Your task to perform on an android device: Search for "apple airpods pro" on newegg, select the first entry, add it to the cart, then select checkout. Image 0: 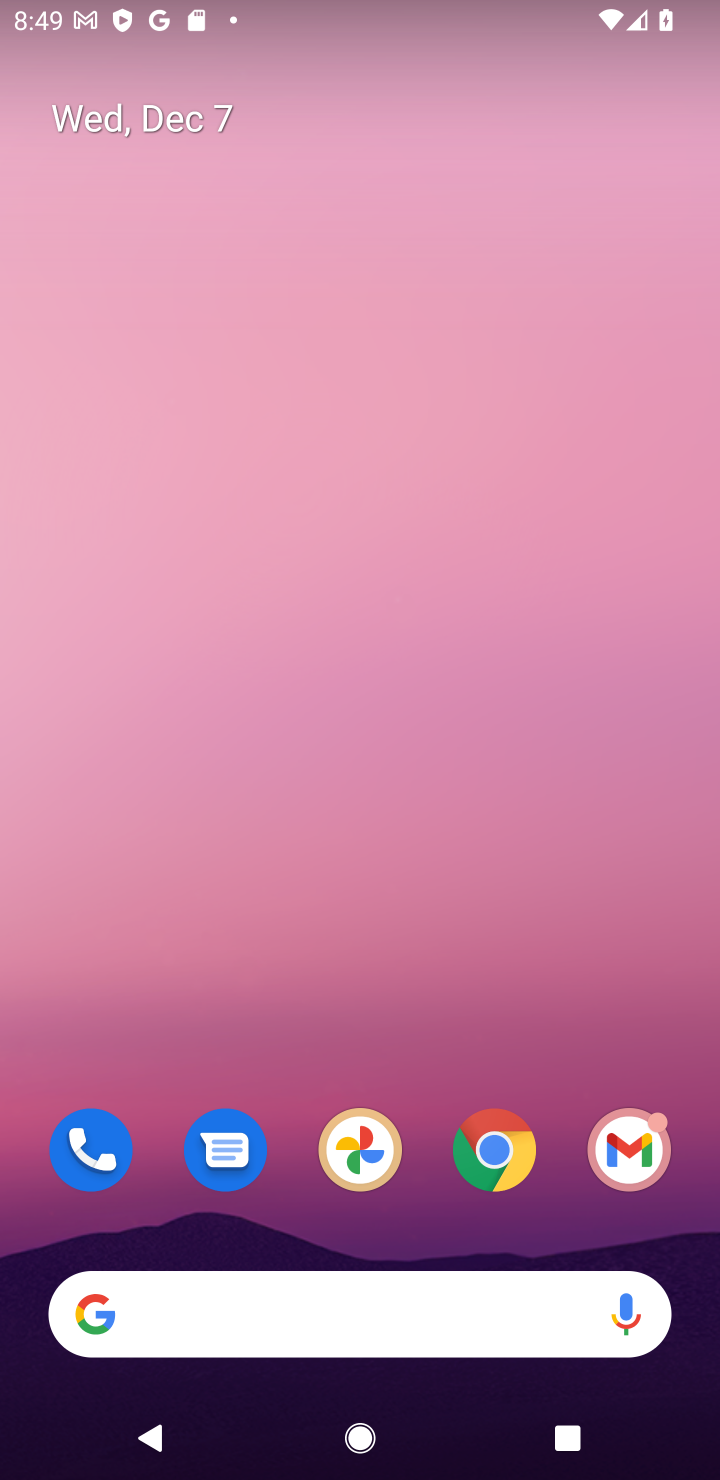
Step 0: click (519, 1164)
Your task to perform on an android device: Search for "apple airpods pro" on newegg, select the first entry, add it to the cart, then select checkout. Image 1: 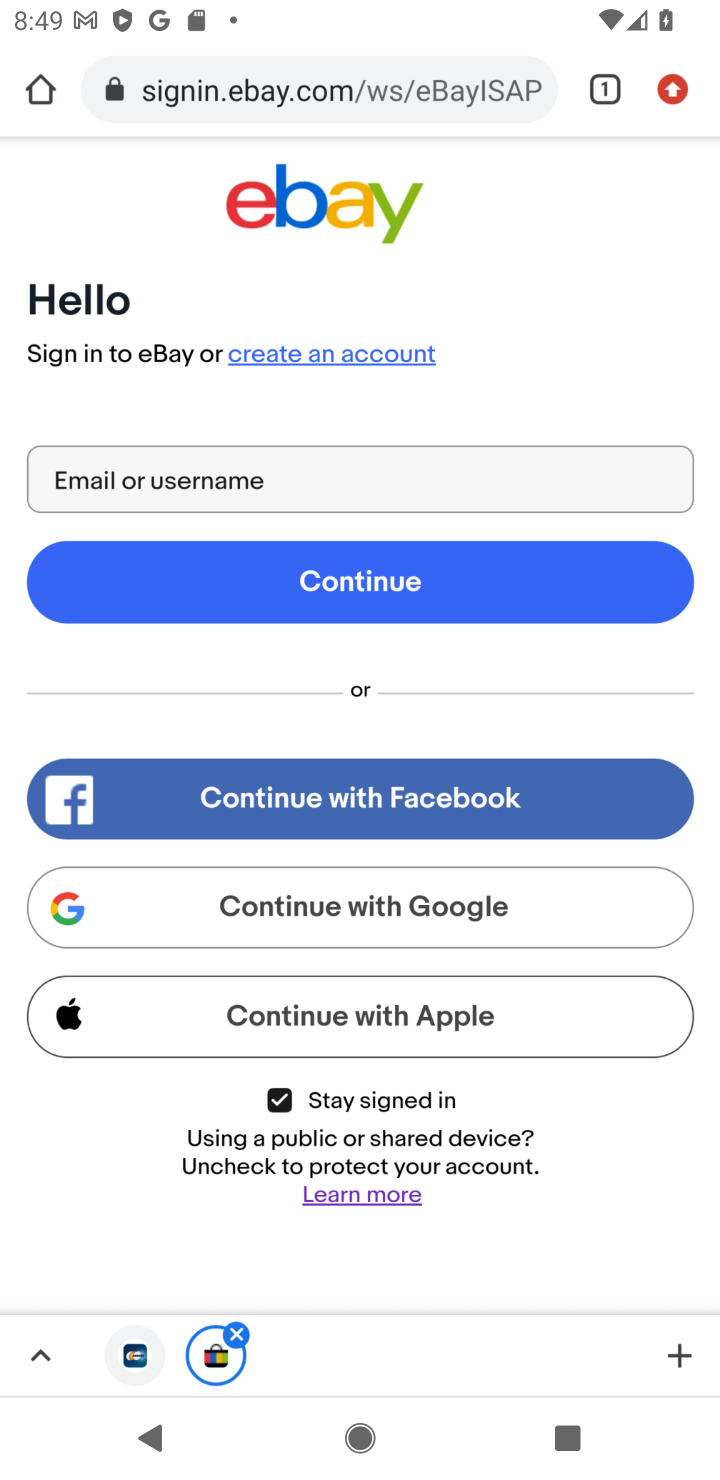
Step 1: click (273, 95)
Your task to perform on an android device: Search for "apple airpods pro" on newegg, select the first entry, add it to the cart, then select checkout. Image 2: 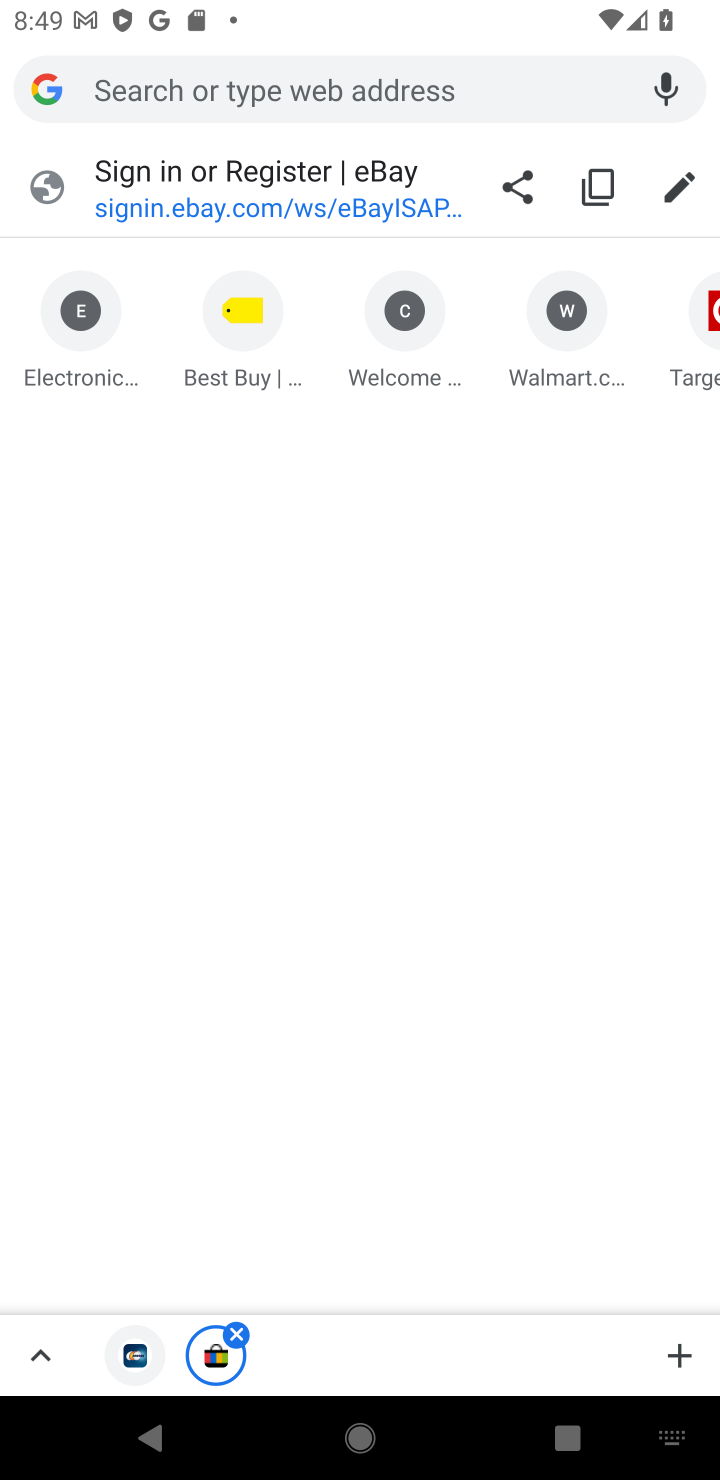
Step 2: type "newegg"
Your task to perform on an android device: Search for "apple airpods pro" on newegg, select the first entry, add it to the cart, then select checkout. Image 3: 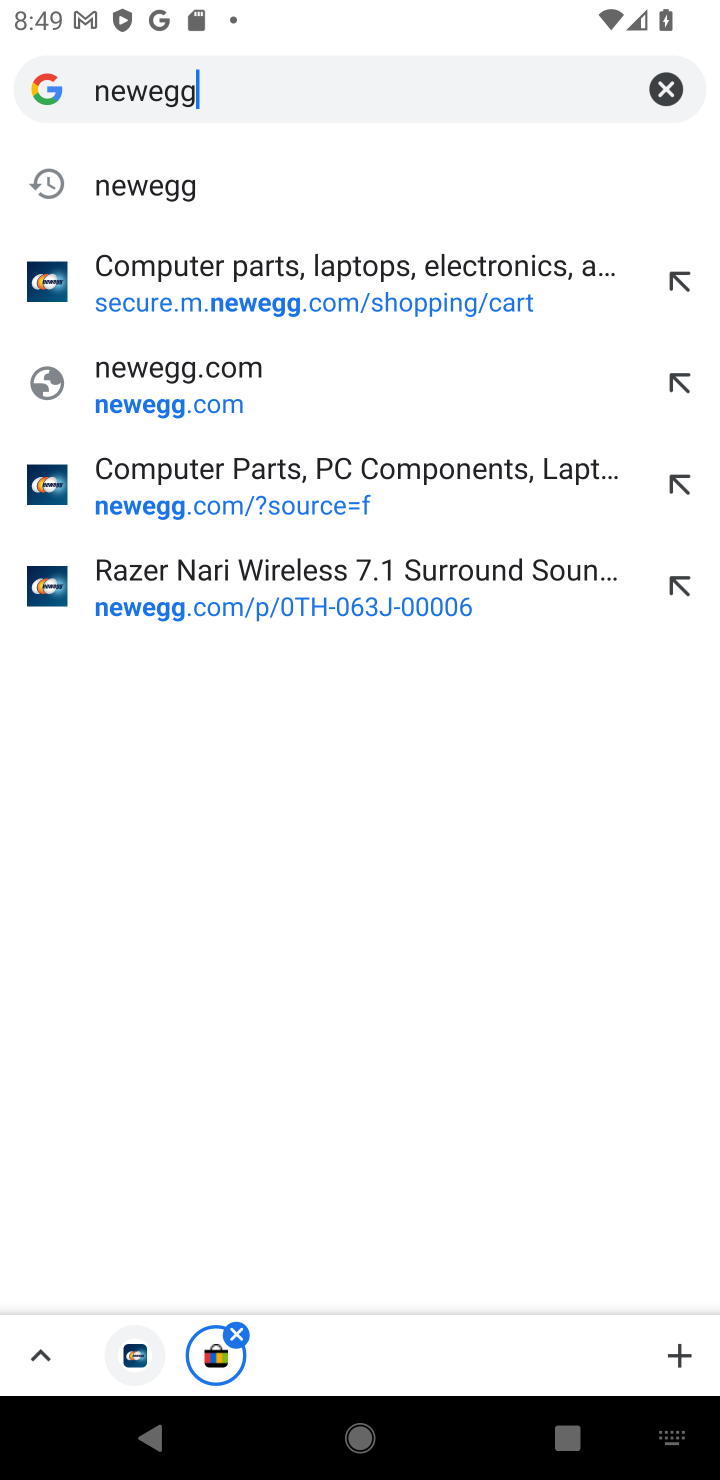
Step 3: click (217, 384)
Your task to perform on an android device: Search for "apple airpods pro" on newegg, select the first entry, add it to the cart, then select checkout. Image 4: 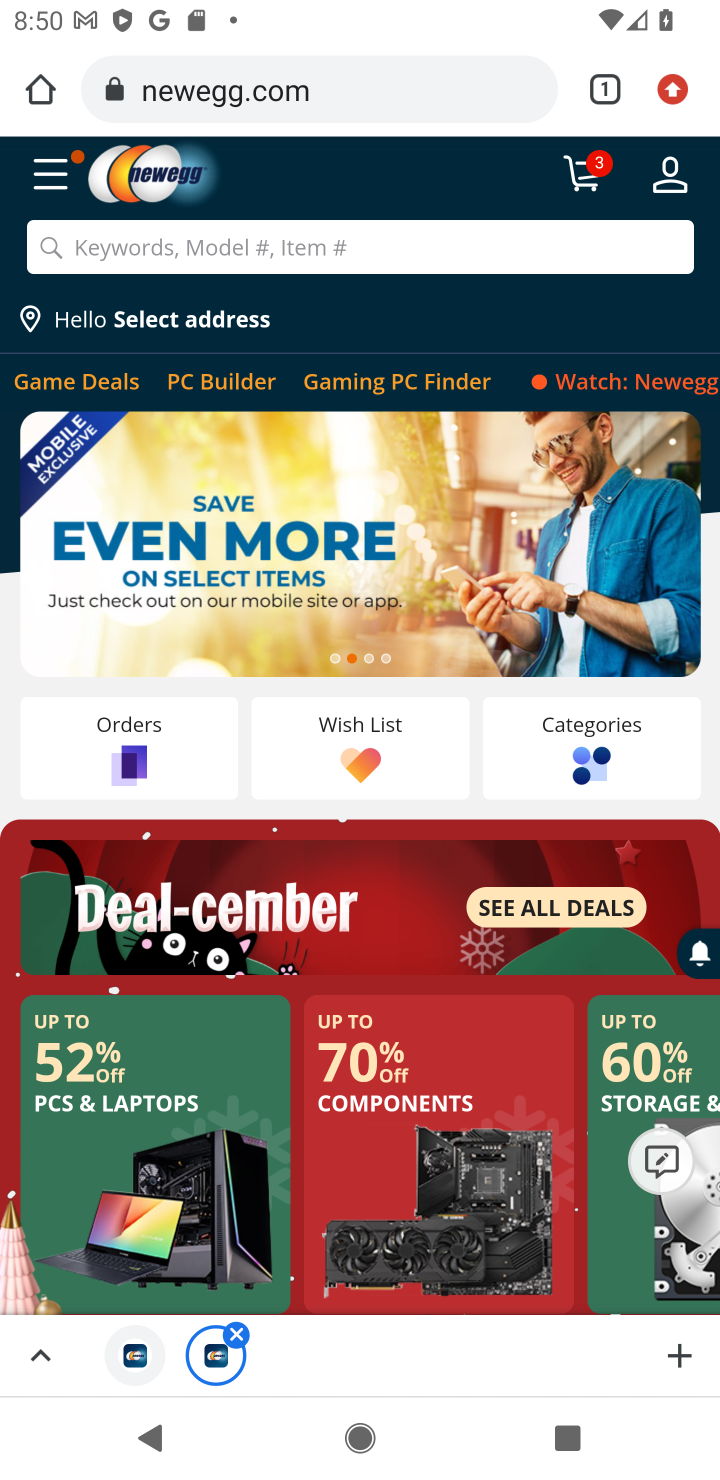
Step 4: click (340, 261)
Your task to perform on an android device: Search for "apple airpods pro" on newegg, select the first entry, add it to the cart, then select checkout. Image 5: 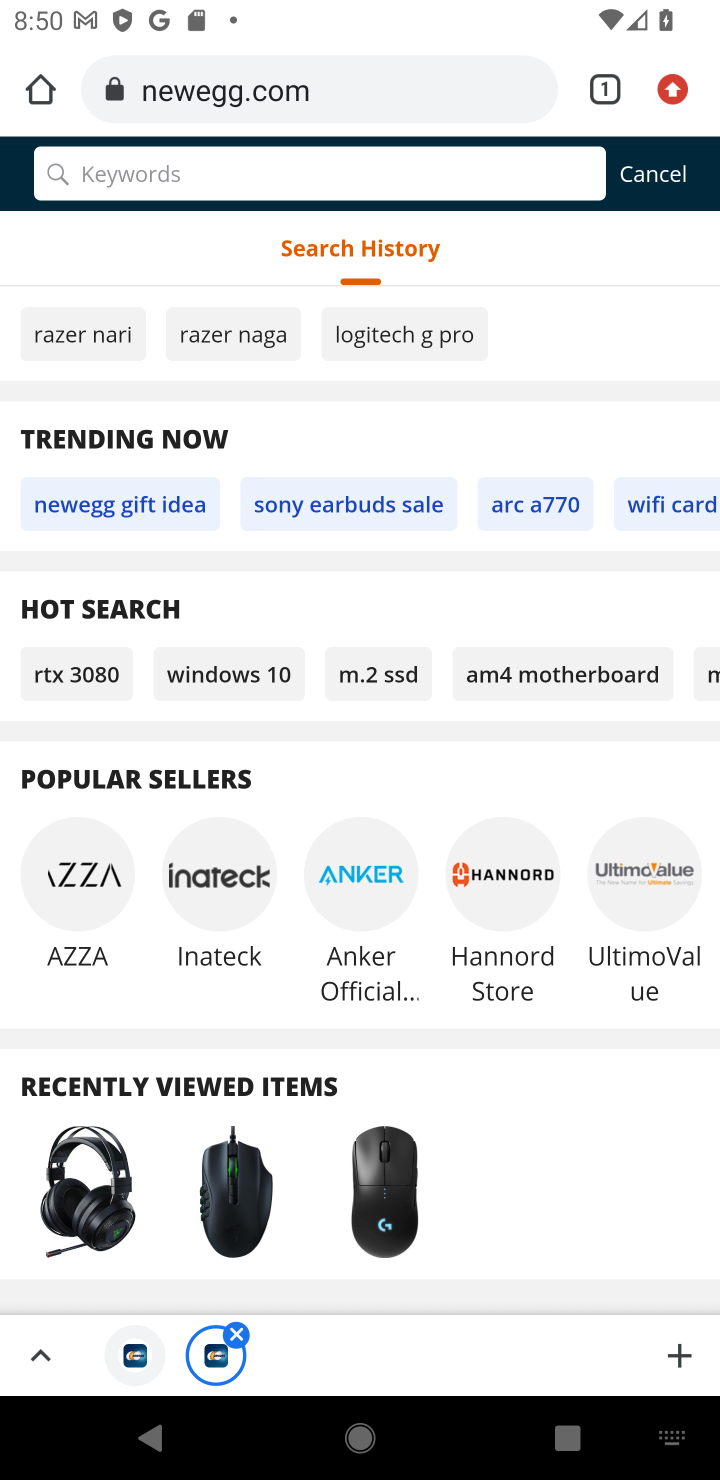
Step 5: type "apple airpods pro"
Your task to perform on an android device: Search for "apple airpods pro" on newegg, select the first entry, add it to the cart, then select checkout. Image 6: 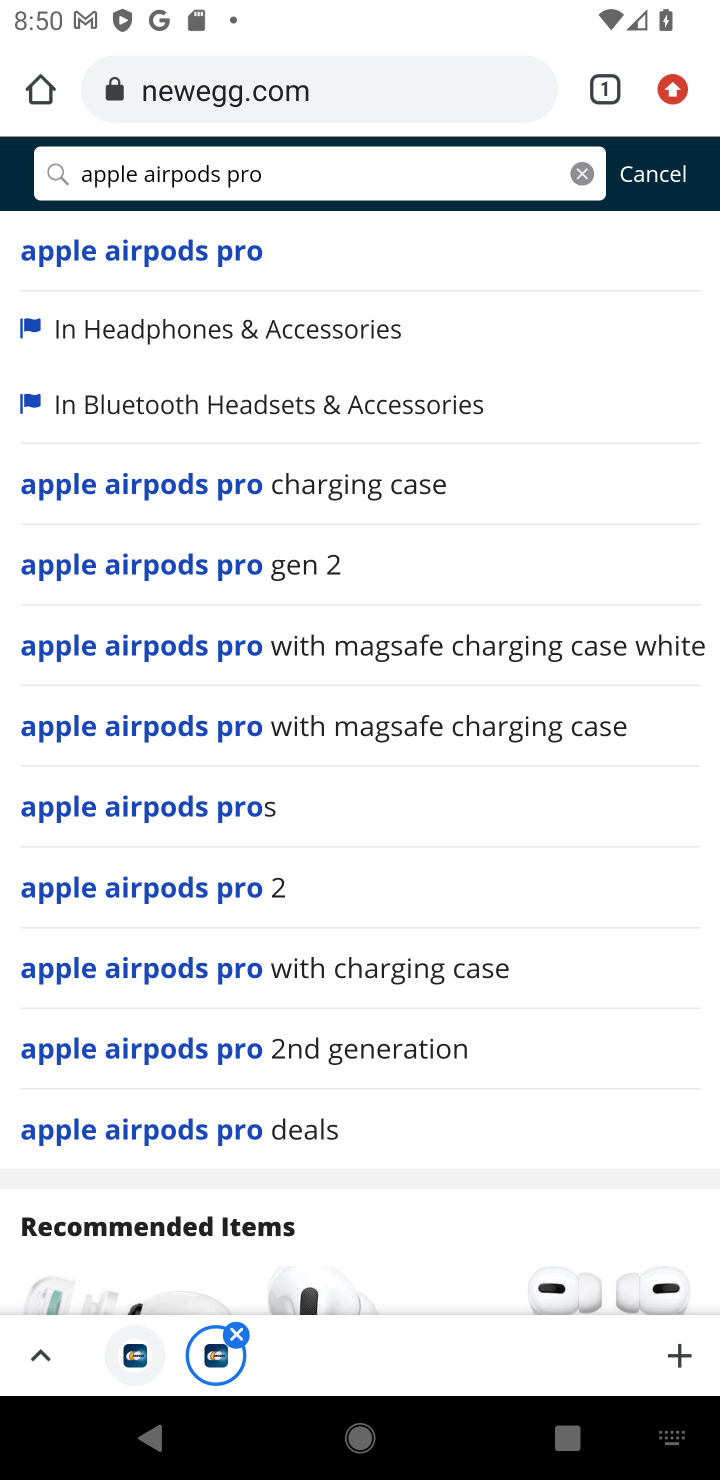
Step 6: press enter
Your task to perform on an android device: Search for "apple airpods pro" on newegg, select the first entry, add it to the cart, then select checkout. Image 7: 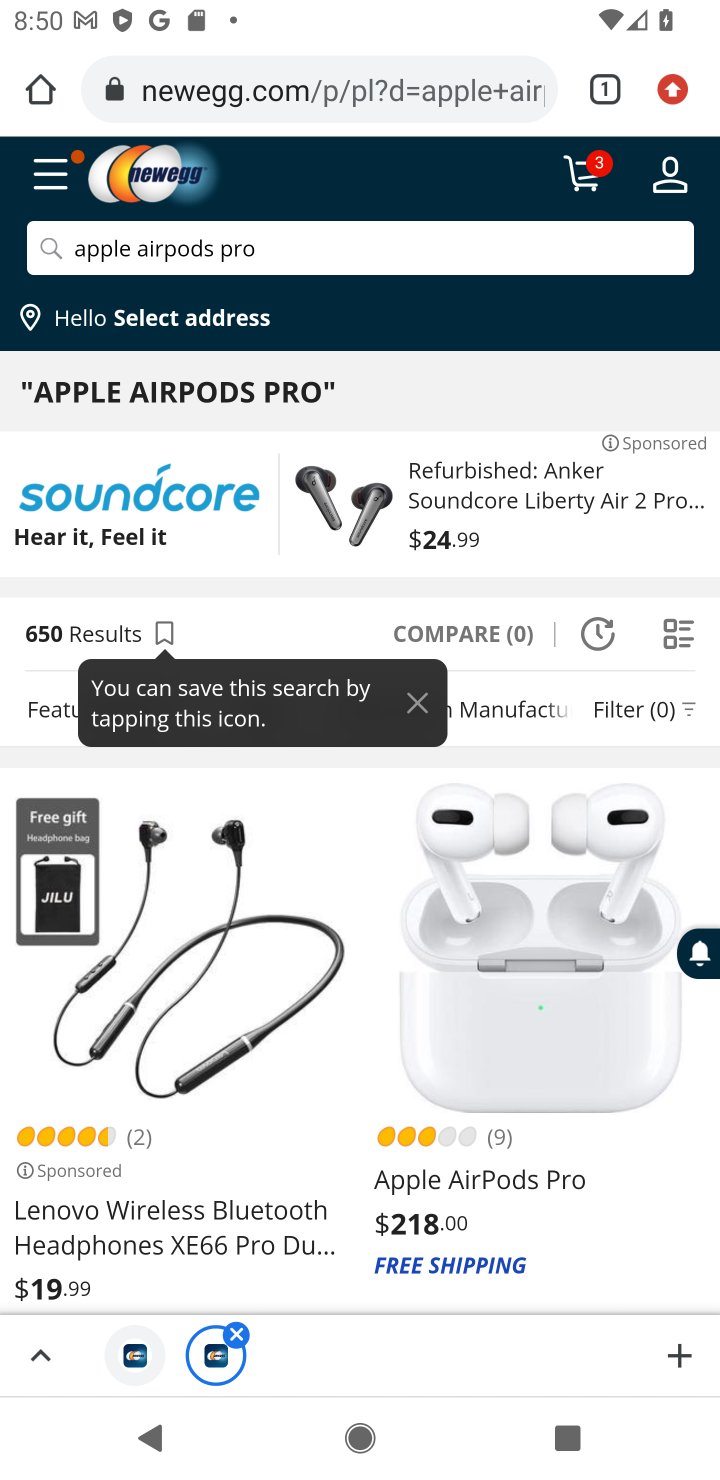
Step 7: drag from (329, 1141) to (376, 739)
Your task to perform on an android device: Search for "apple airpods pro" on newegg, select the first entry, add it to the cart, then select checkout. Image 8: 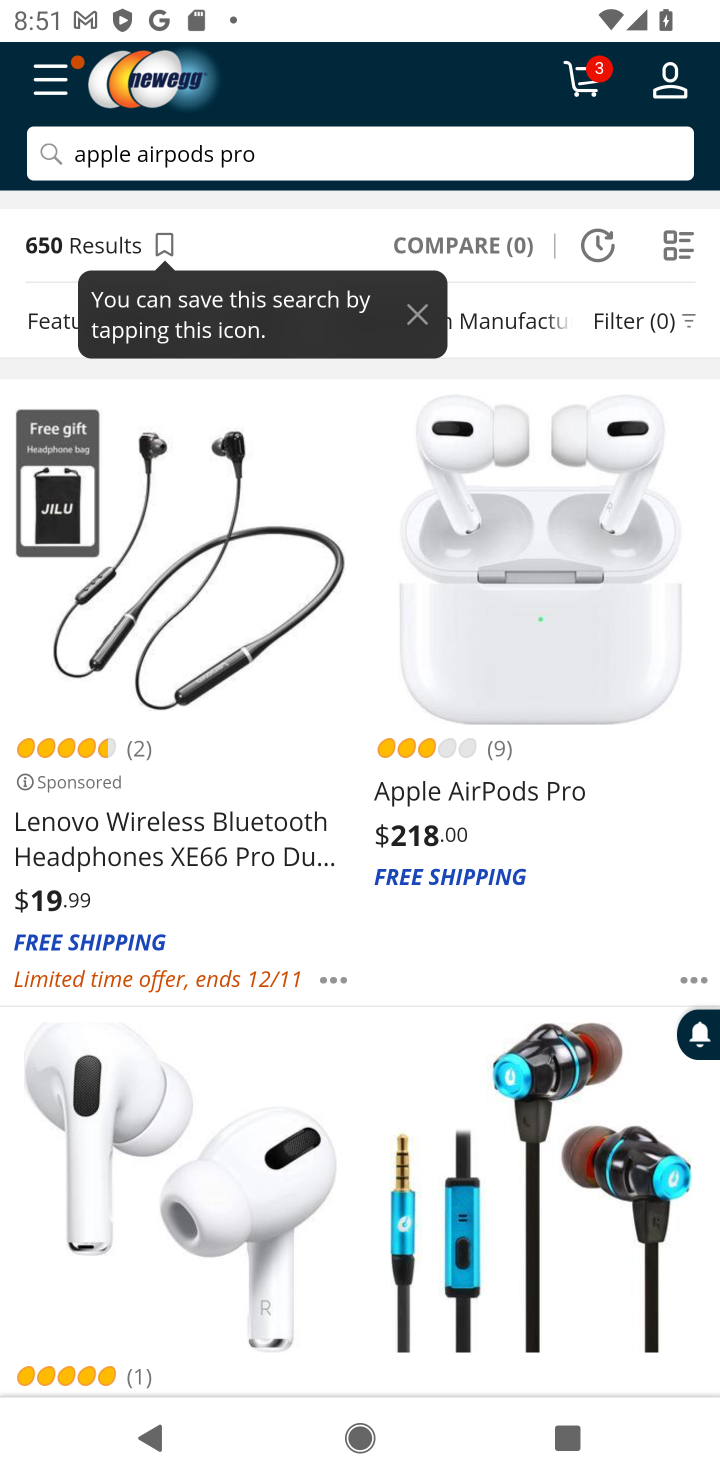
Step 8: click (541, 645)
Your task to perform on an android device: Search for "apple airpods pro" on newegg, select the first entry, add it to the cart, then select checkout. Image 9: 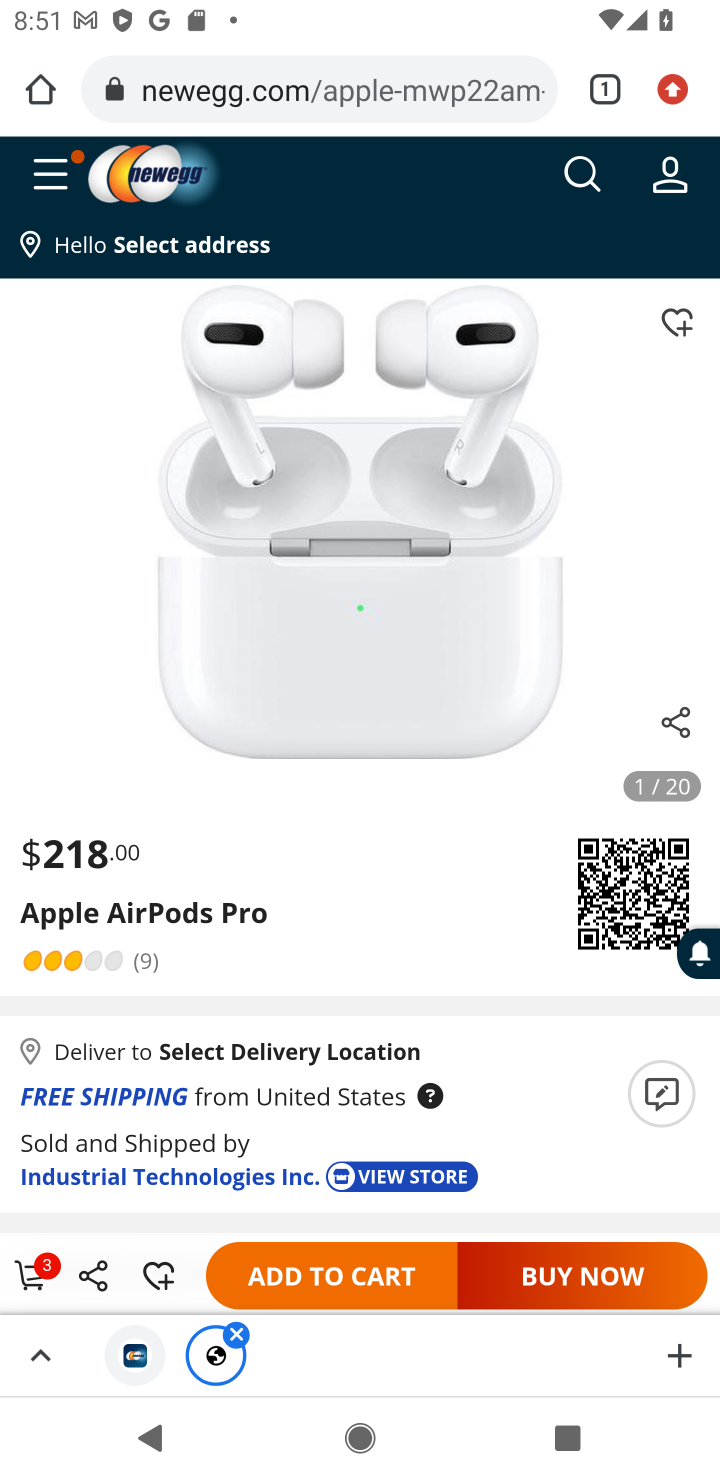
Step 9: click (419, 1272)
Your task to perform on an android device: Search for "apple airpods pro" on newegg, select the first entry, add it to the cart, then select checkout. Image 10: 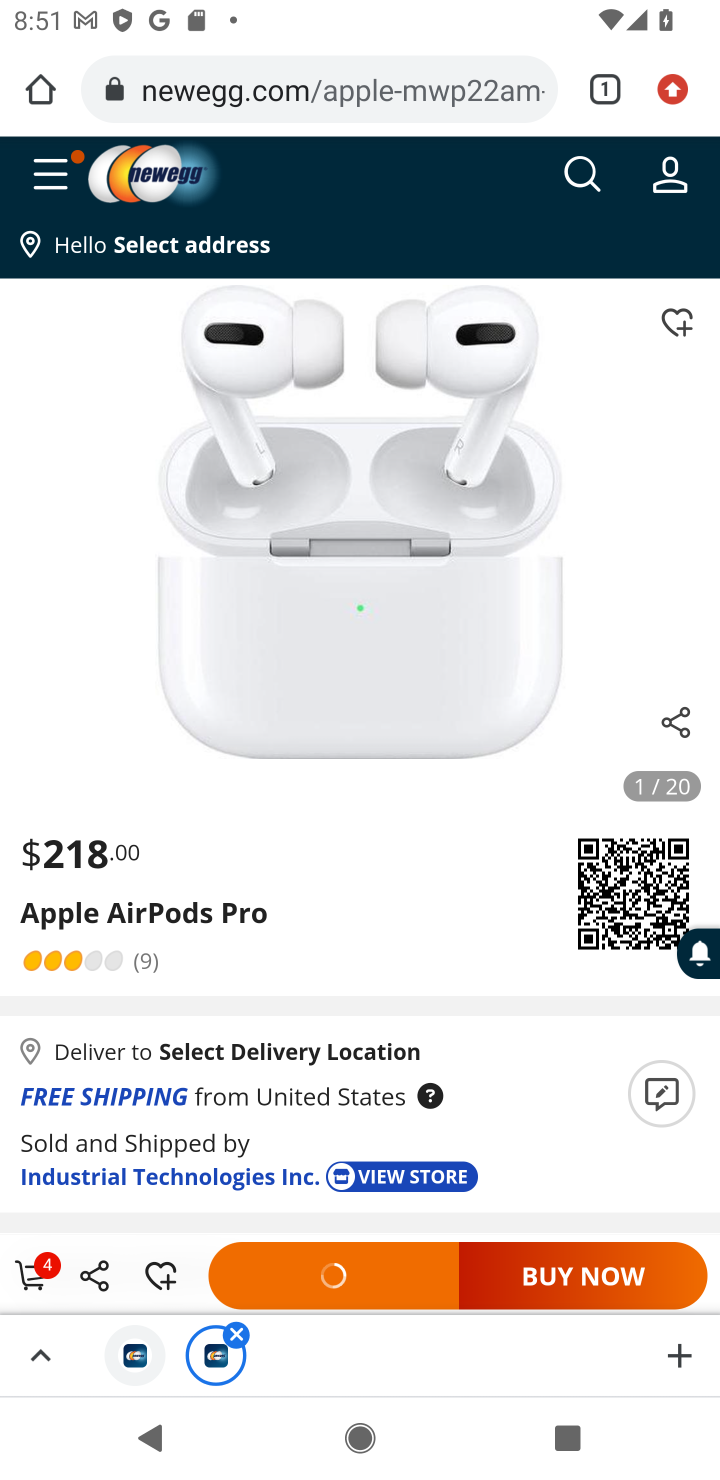
Step 10: click (40, 1272)
Your task to perform on an android device: Search for "apple airpods pro" on newegg, select the first entry, add it to the cart, then select checkout. Image 11: 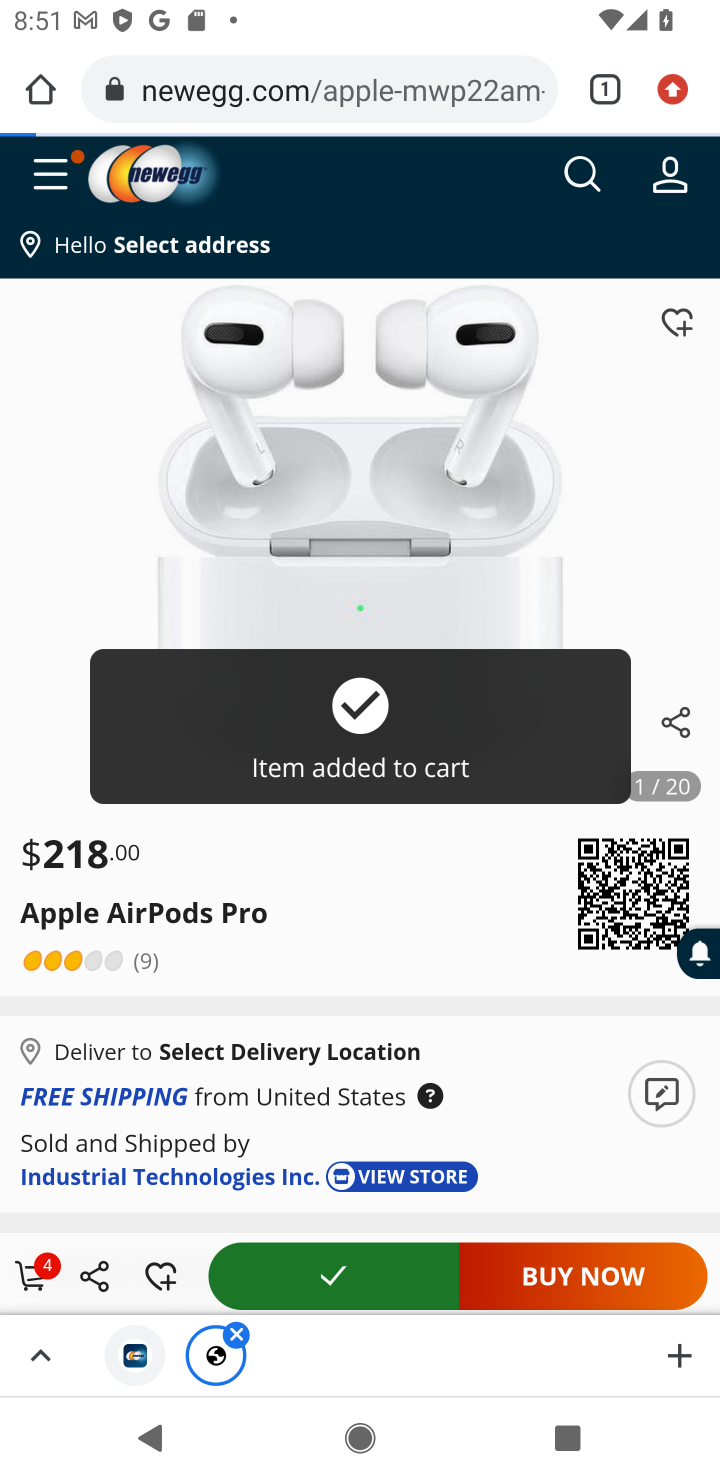
Step 11: click (502, 1258)
Your task to perform on an android device: Search for "apple airpods pro" on newegg, select the first entry, add it to the cart, then select checkout. Image 12: 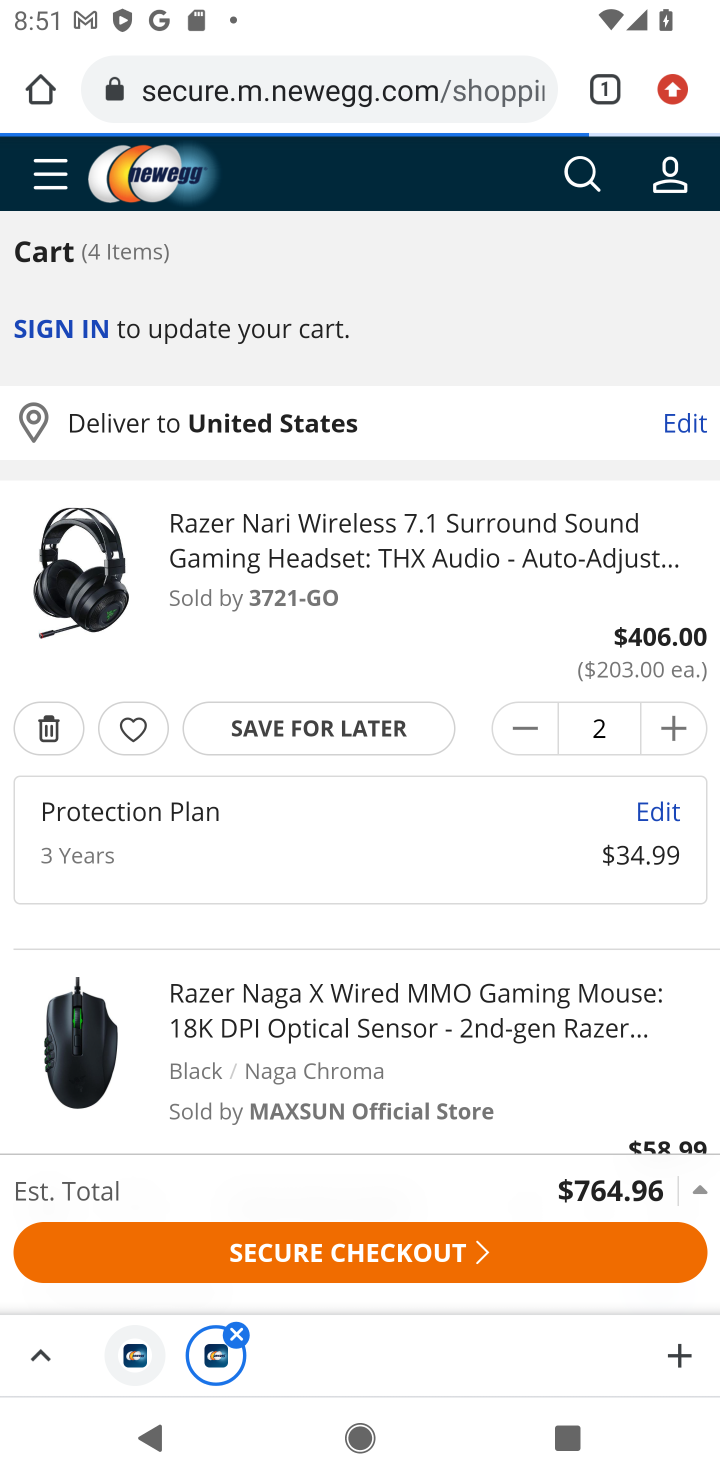
Step 12: click (289, 1267)
Your task to perform on an android device: Search for "apple airpods pro" on newegg, select the first entry, add it to the cart, then select checkout. Image 13: 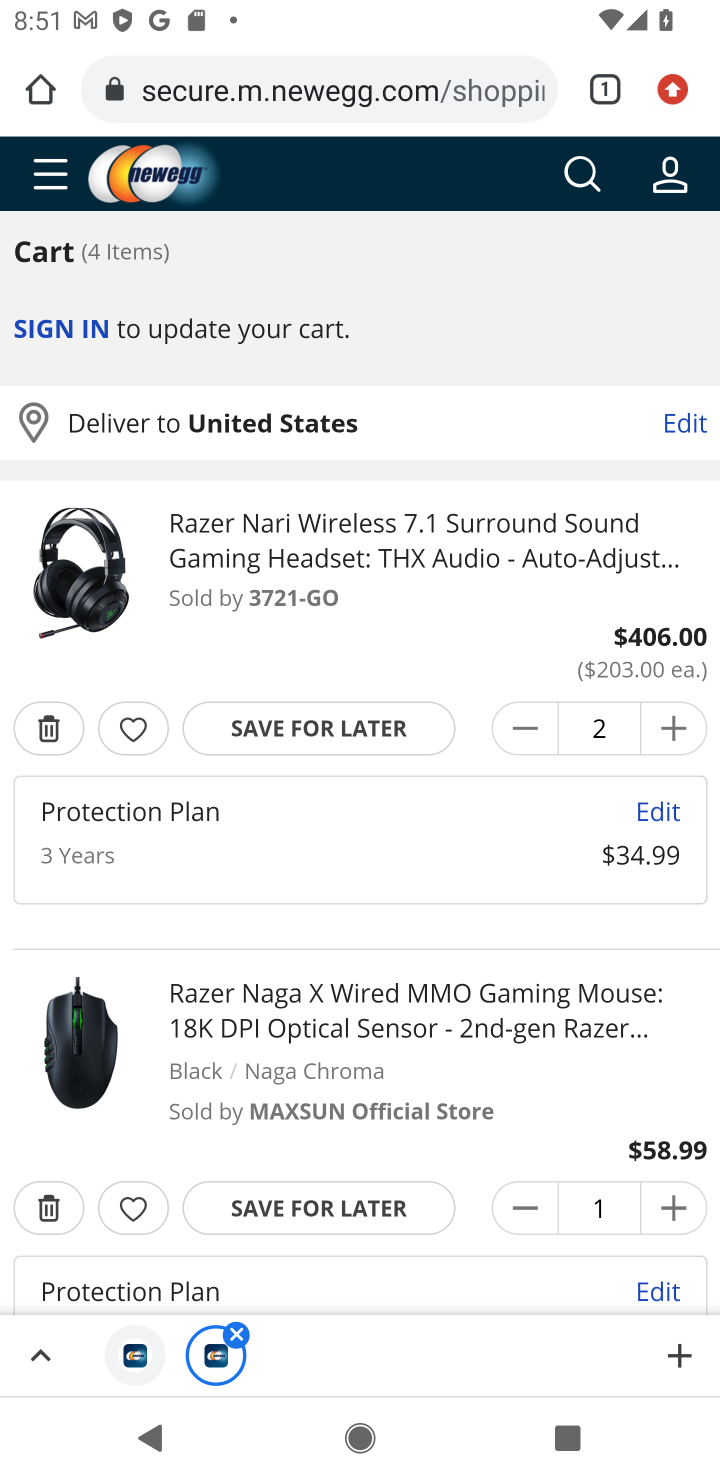
Step 13: click (289, 1267)
Your task to perform on an android device: Search for "apple airpods pro" on newegg, select the first entry, add it to the cart, then select checkout. Image 14: 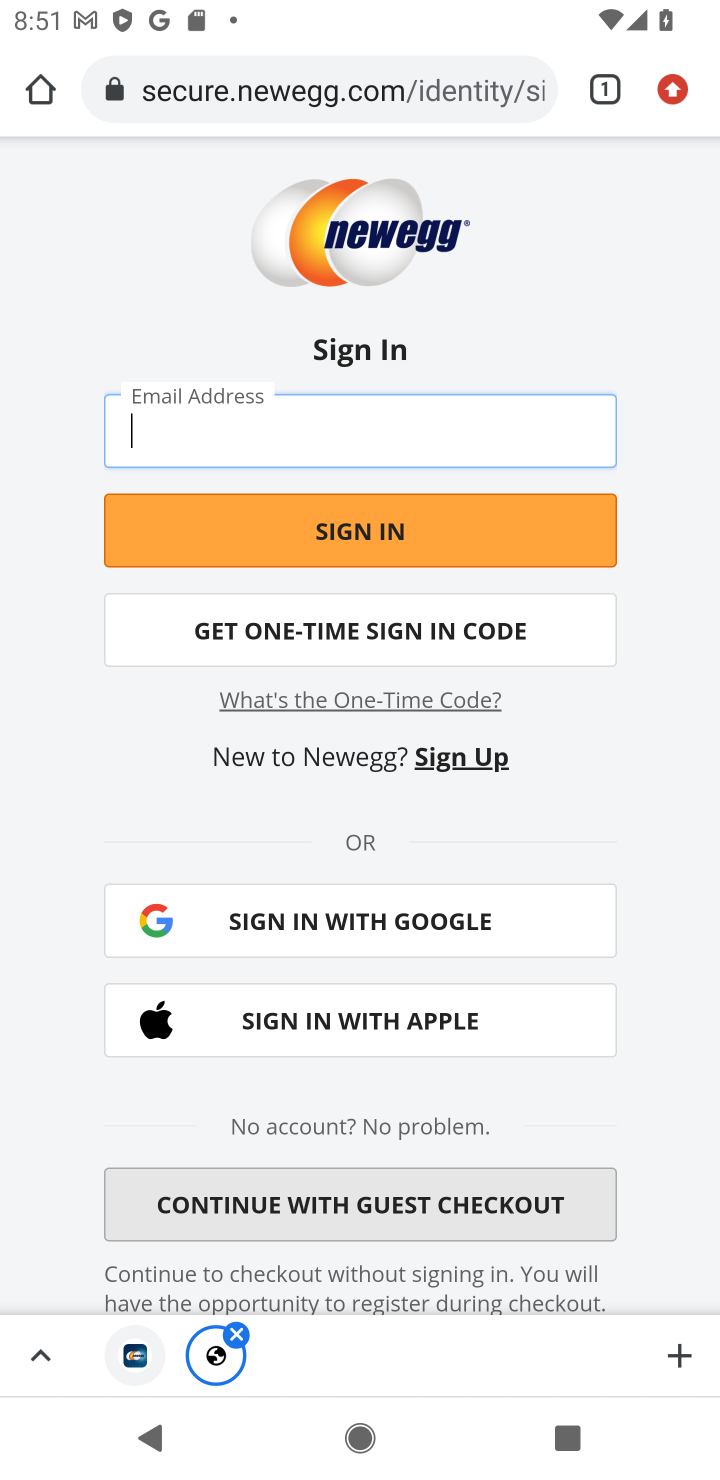
Step 14: task complete